Your task to perform on an android device: see creations saved in the google photos Image 0: 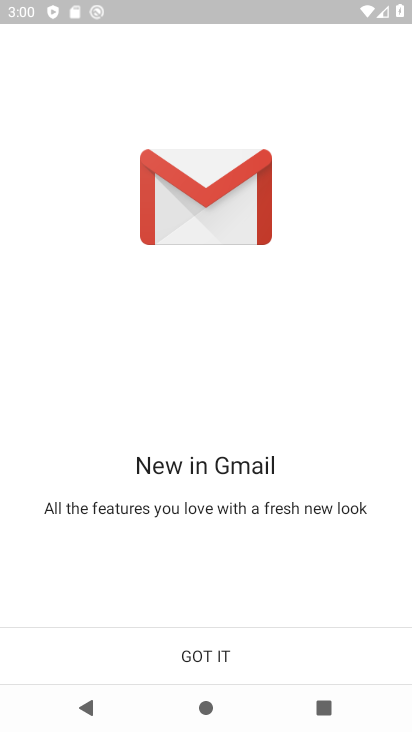
Step 0: click (205, 653)
Your task to perform on an android device: see creations saved in the google photos Image 1: 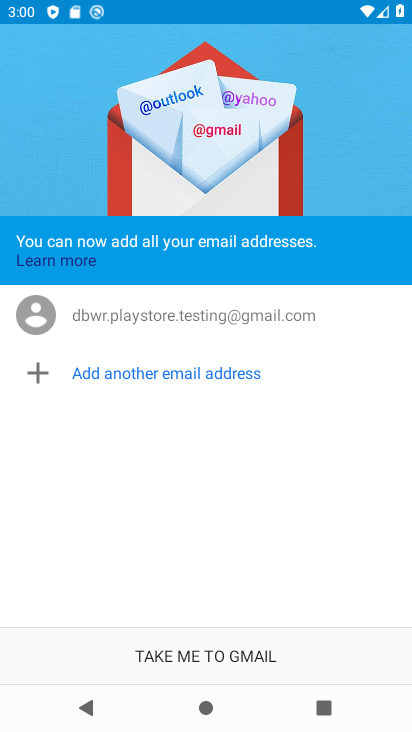
Step 1: click (217, 650)
Your task to perform on an android device: see creations saved in the google photos Image 2: 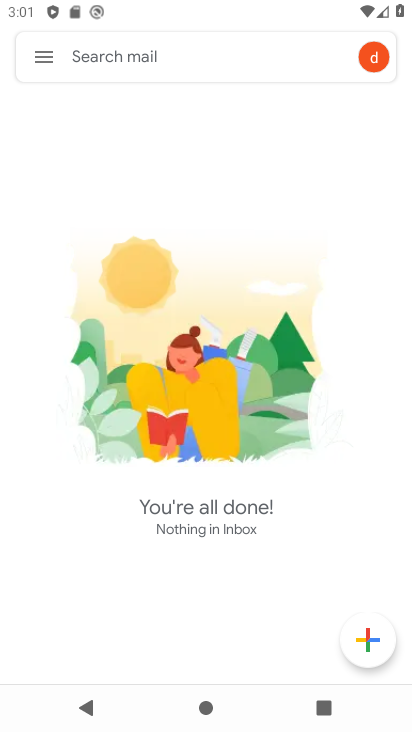
Step 2: press home button
Your task to perform on an android device: see creations saved in the google photos Image 3: 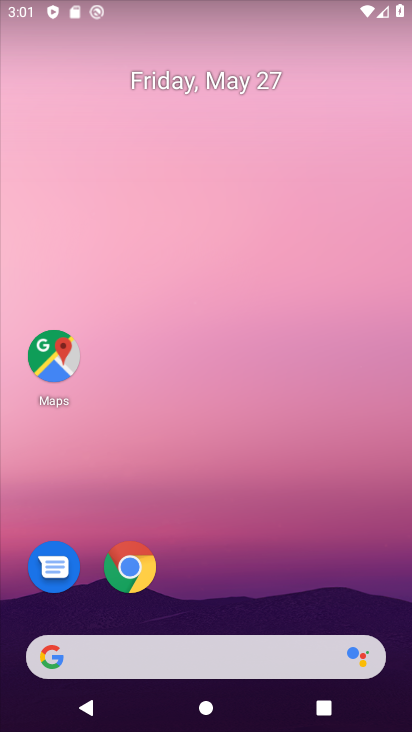
Step 3: drag from (386, 597) to (360, 277)
Your task to perform on an android device: see creations saved in the google photos Image 4: 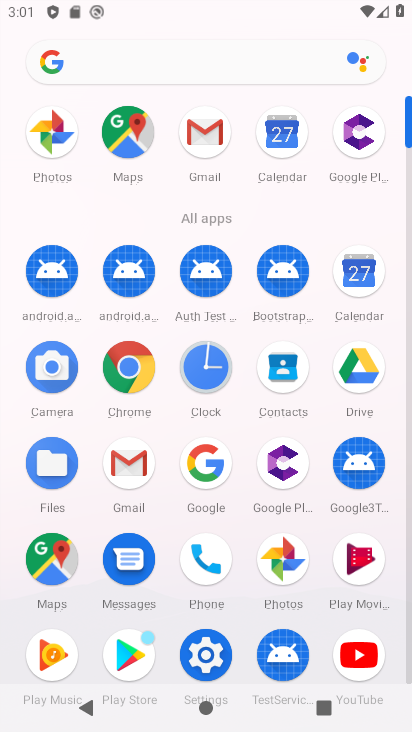
Step 4: click (412, 666)
Your task to perform on an android device: see creations saved in the google photos Image 5: 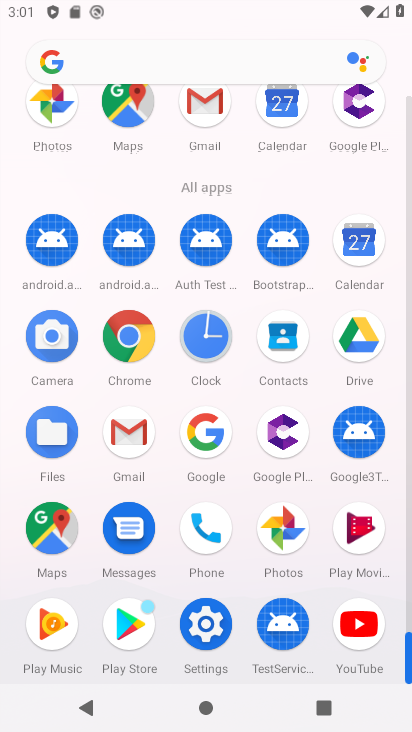
Step 5: click (288, 528)
Your task to perform on an android device: see creations saved in the google photos Image 6: 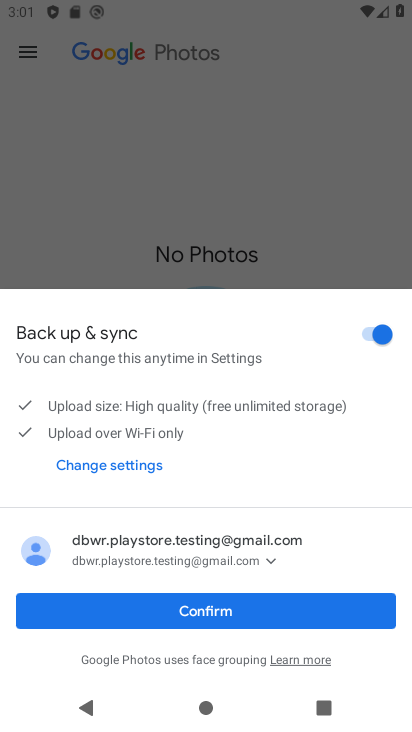
Step 6: click (199, 609)
Your task to perform on an android device: see creations saved in the google photos Image 7: 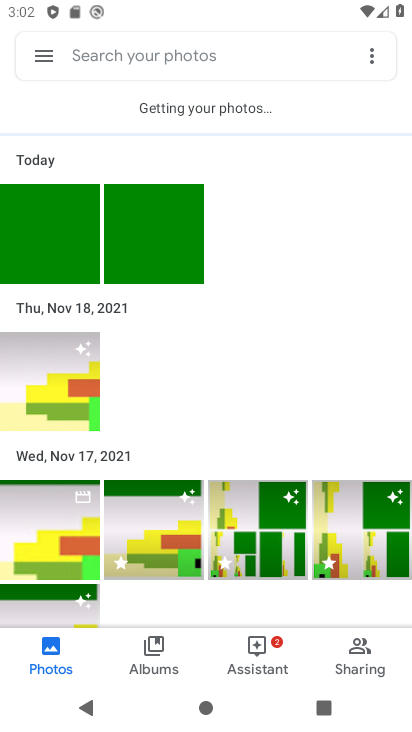
Step 7: task complete